Your task to perform on an android device: Search for Italian restaurants on Maps Image 0: 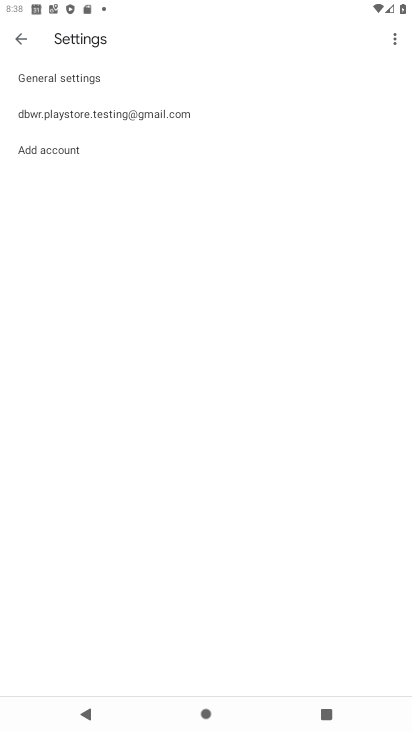
Step 0: press home button
Your task to perform on an android device: Search for Italian restaurants on Maps Image 1: 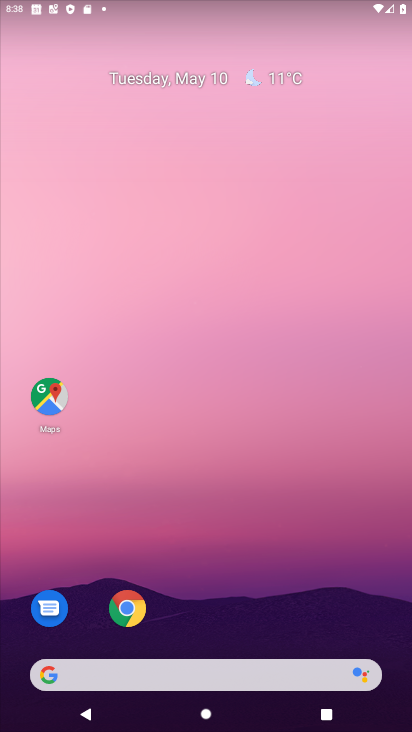
Step 1: click (51, 395)
Your task to perform on an android device: Search for Italian restaurants on Maps Image 2: 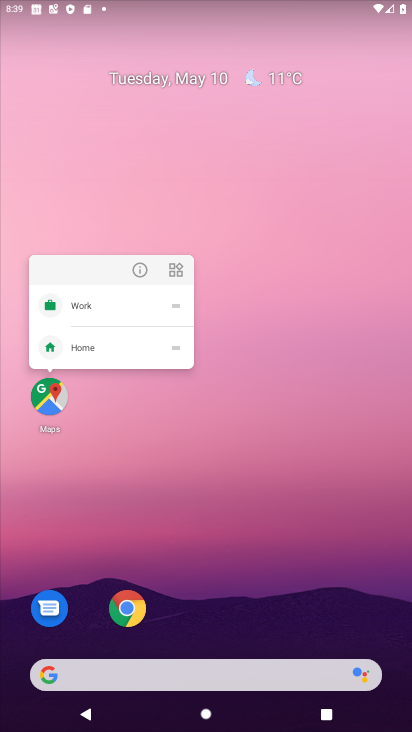
Step 2: click (43, 385)
Your task to perform on an android device: Search for Italian restaurants on Maps Image 3: 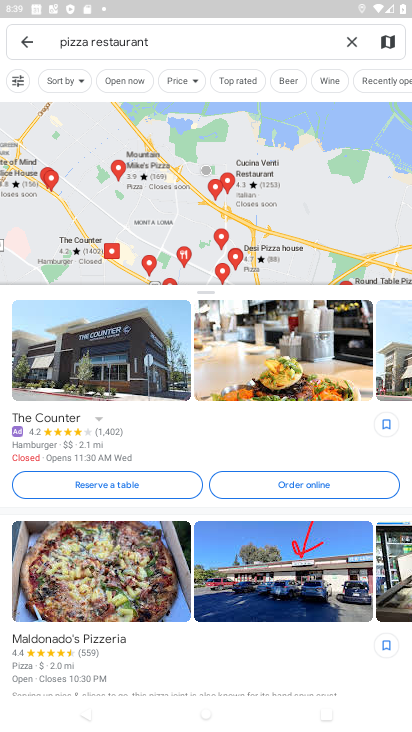
Step 3: click (361, 38)
Your task to perform on an android device: Search for Italian restaurants on Maps Image 4: 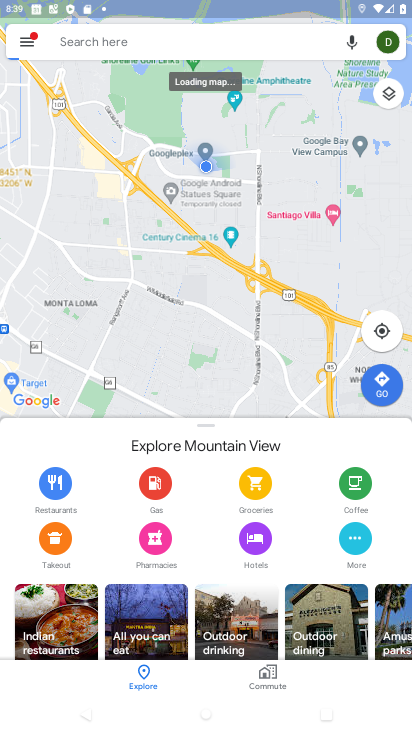
Step 4: click (89, 42)
Your task to perform on an android device: Search for Italian restaurants on Maps Image 5: 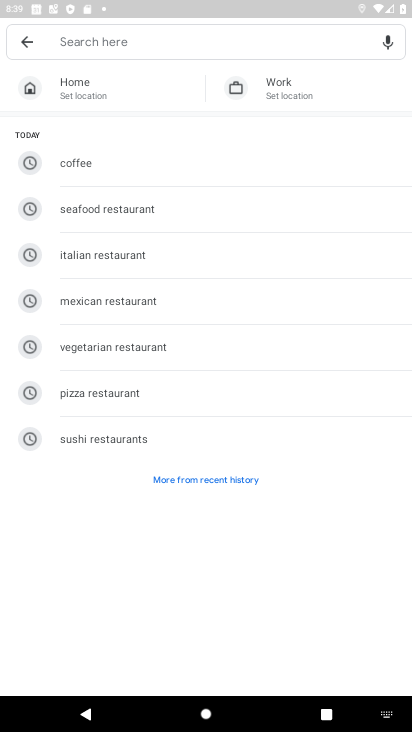
Step 5: click (119, 256)
Your task to perform on an android device: Search for Italian restaurants on Maps Image 6: 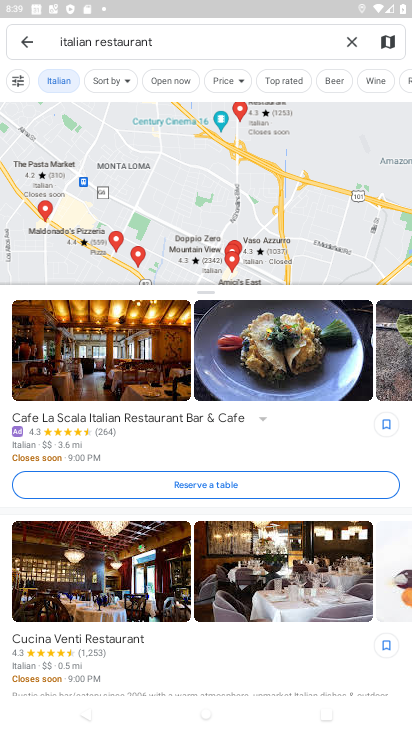
Step 6: task complete